Your task to perform on an android device: set the timer Image 0: 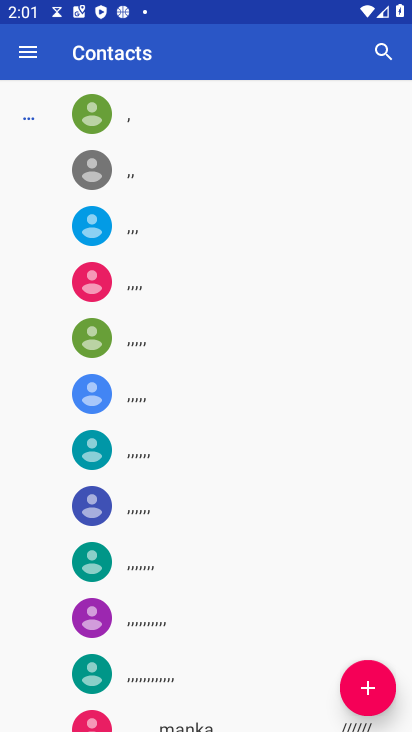
Step 0: press home button
Your task to perform on an android device: set the timer Image 1: 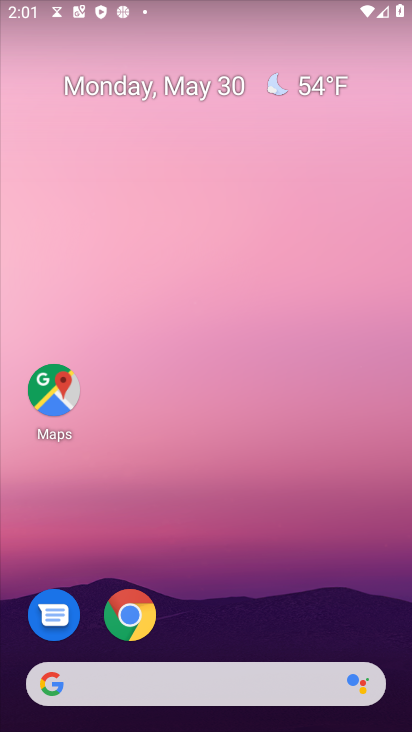
Step 1: drag from (283, 543) to (256, 50)
Your task to perform on an android device: set the timer Image 2: 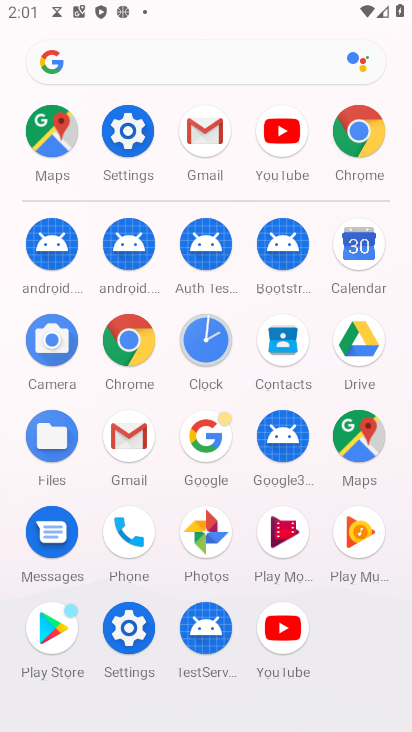
Step 2: click (202, 332)
Your task to perform on an android device: set the timer Image 3: 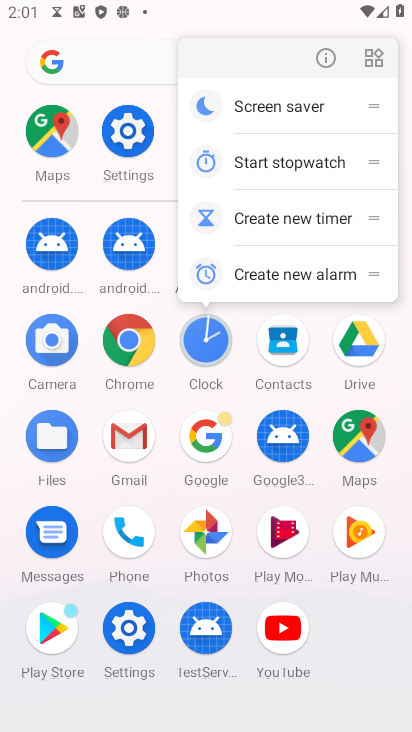
Step 3: click (208, 340)
Your task to perform on an android device: set the timer Image 4: 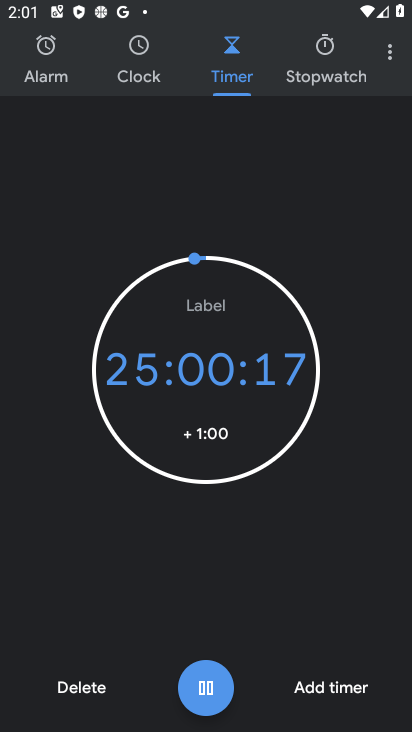
Step 4: task complete